Your task to perform on an android device: Open sound settings Image 0: 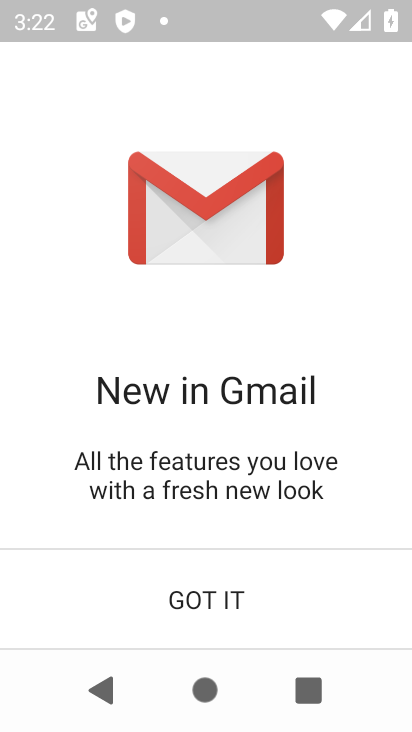
Step 0: press home button
Your task to perform on an android device: Open sound settings Image 1: 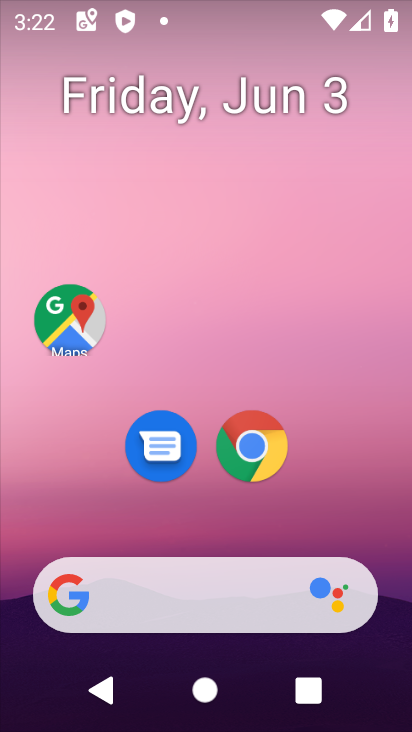
Step 1: drag from (373, 528) to (283, 94)
Your task to perform on an android device: Open sound settings Image 2: 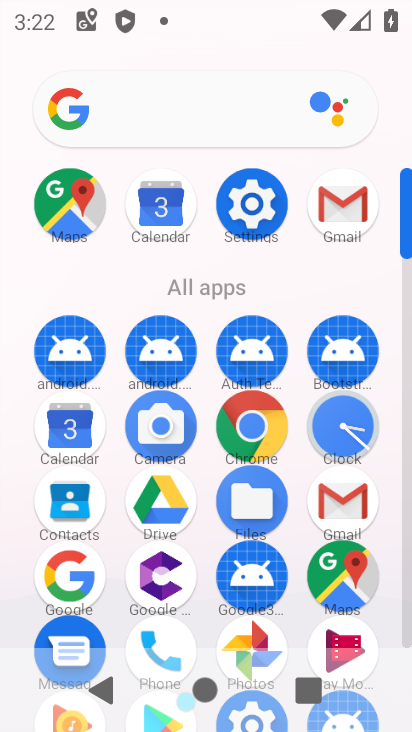
Step 2: click (264, 198)
Your task to perform on an android device: Open sound settings Image 3: 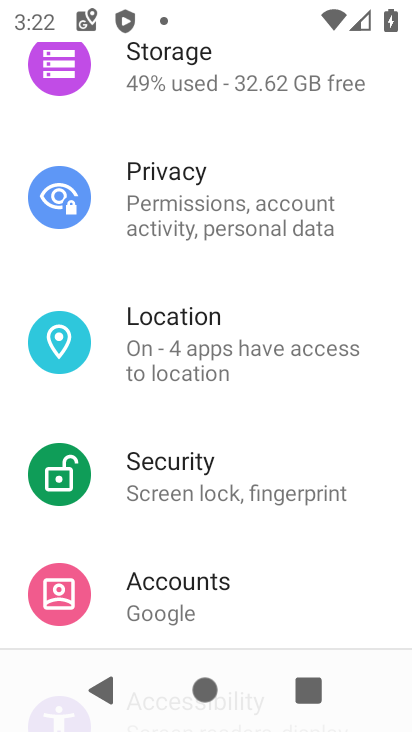
Step 3: drag from (209, 283) to (228, 536)
Your task to perform on an android device: Open sound settings Image 4: 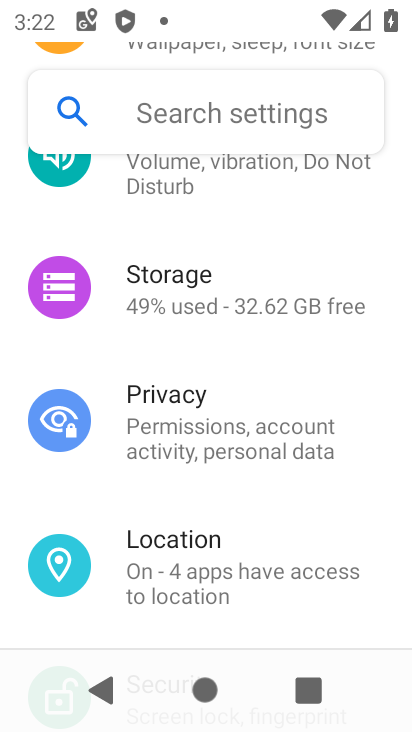
Step 4: click (184, 181)
Your task to perform on an android device: Open sound settings Image 5: 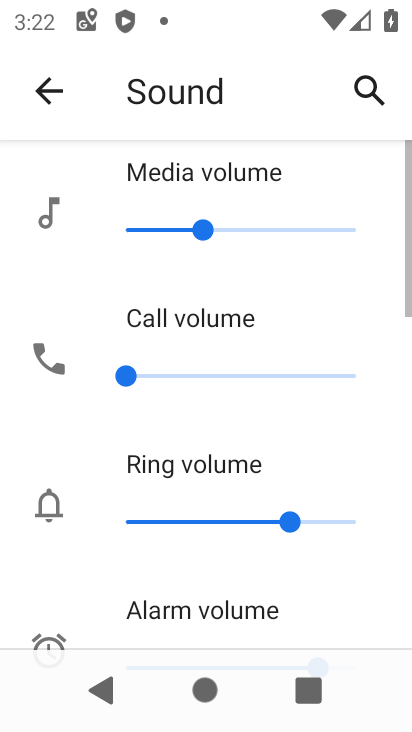
Step 5: task complete